Your task to perform on an android device: Open settings Image 0: 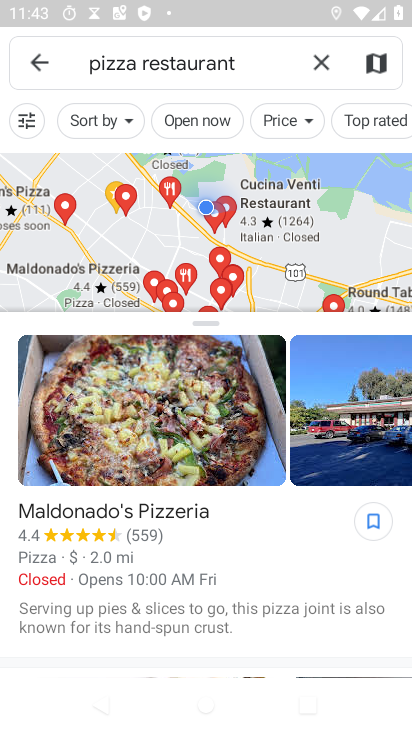
Step 0: task complete